Your task to perform on an android device: Open Reddit.com Image 0: 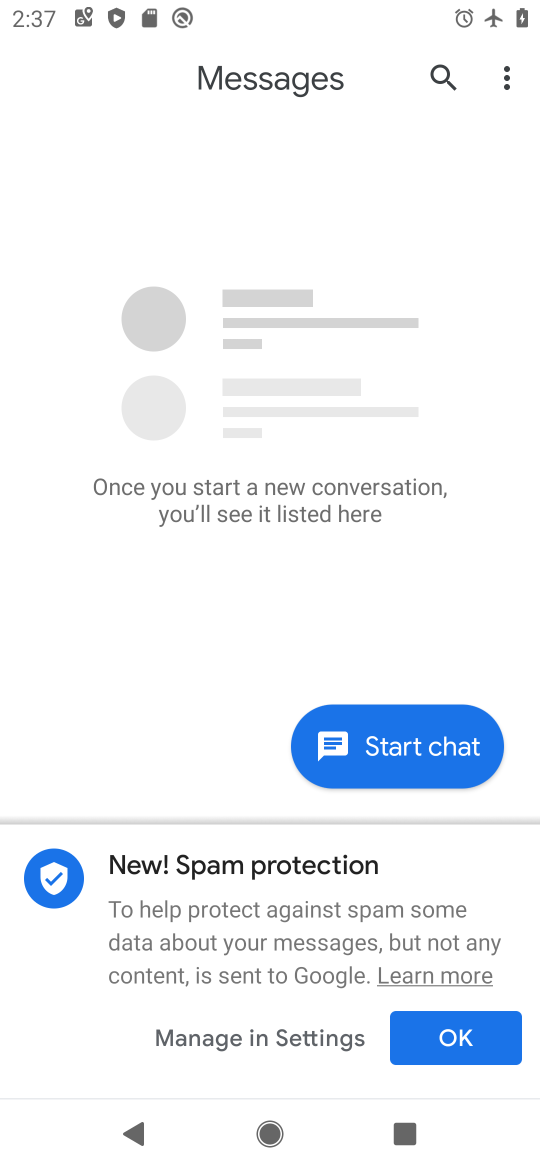
Step 0: press home button
Your task to perform on an android device: Open Reddit.com Image 1: 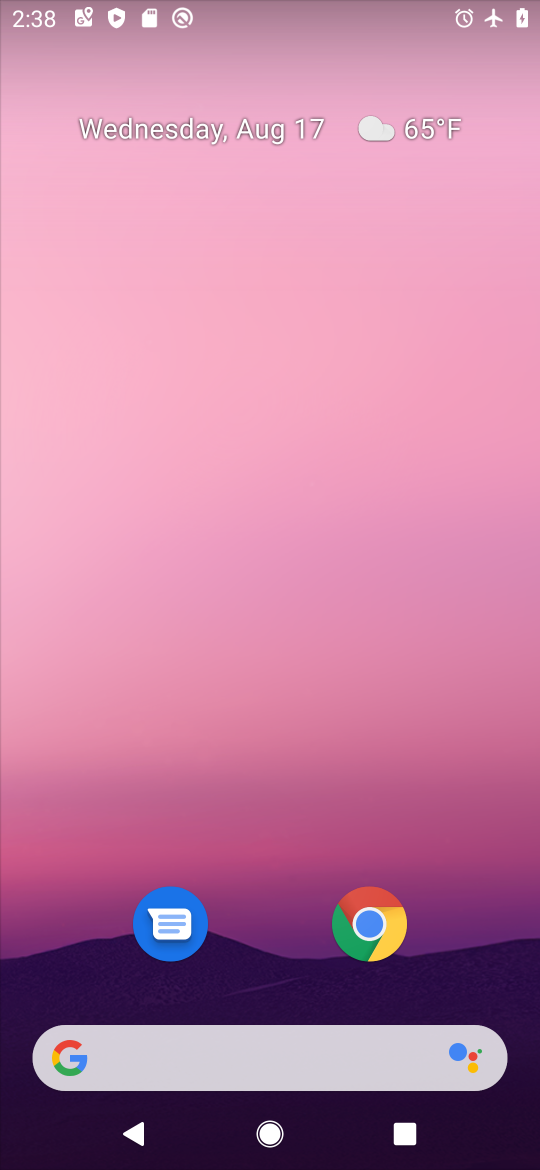
Step 1: click (373, 927)
Your task to perform on an android device: Open Reddit.com Image 2: 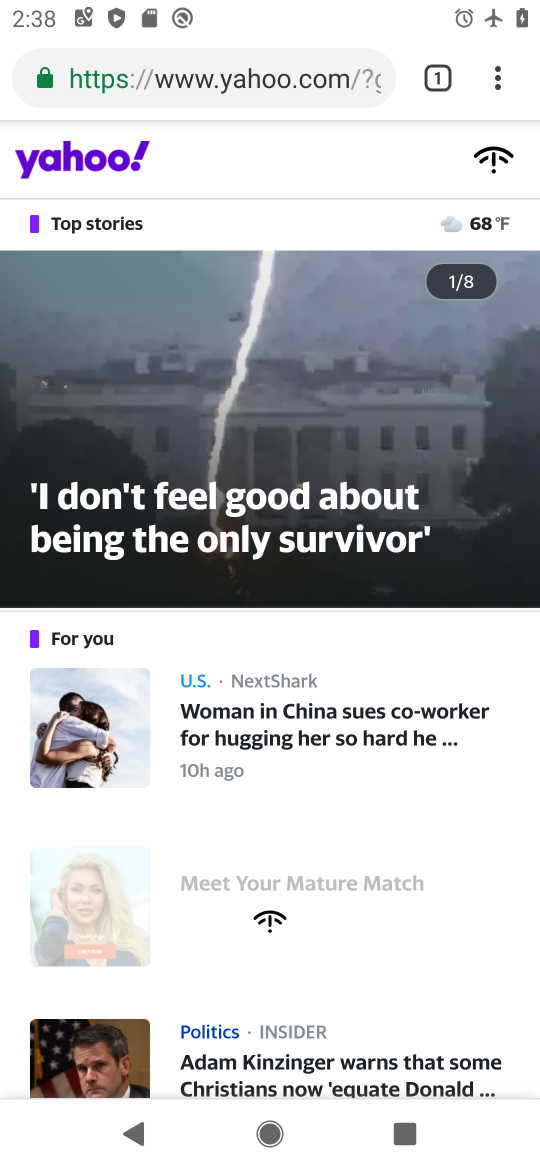
Step 2: click (360, 77)
Your task to perform on an android device: Open Reddit.com Image 3: 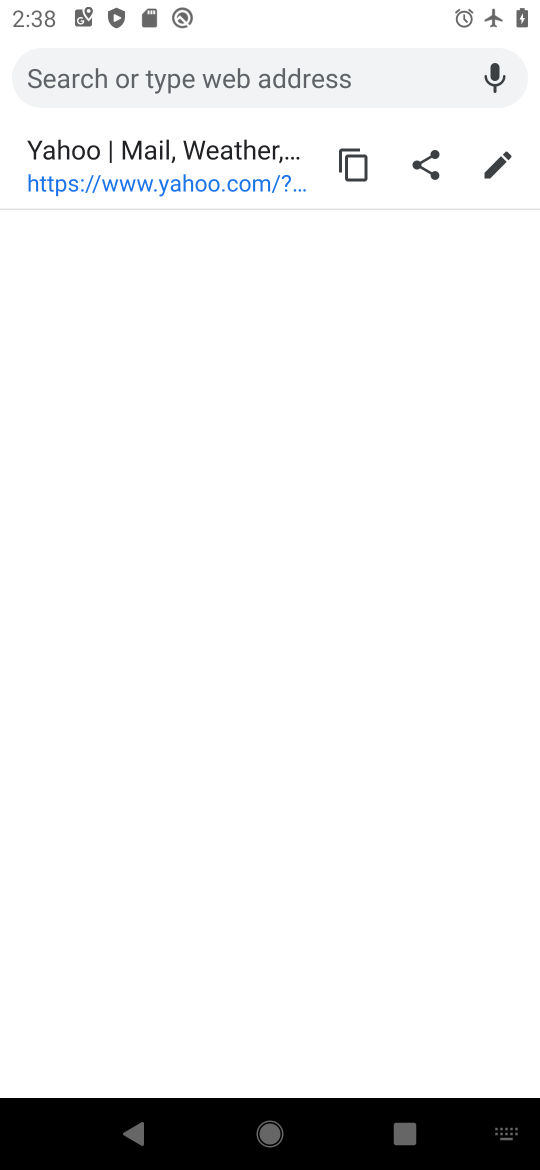
Step 3: type "Reddit.com"
Your task to perform on an android device: Open Reddit.com Image 4: 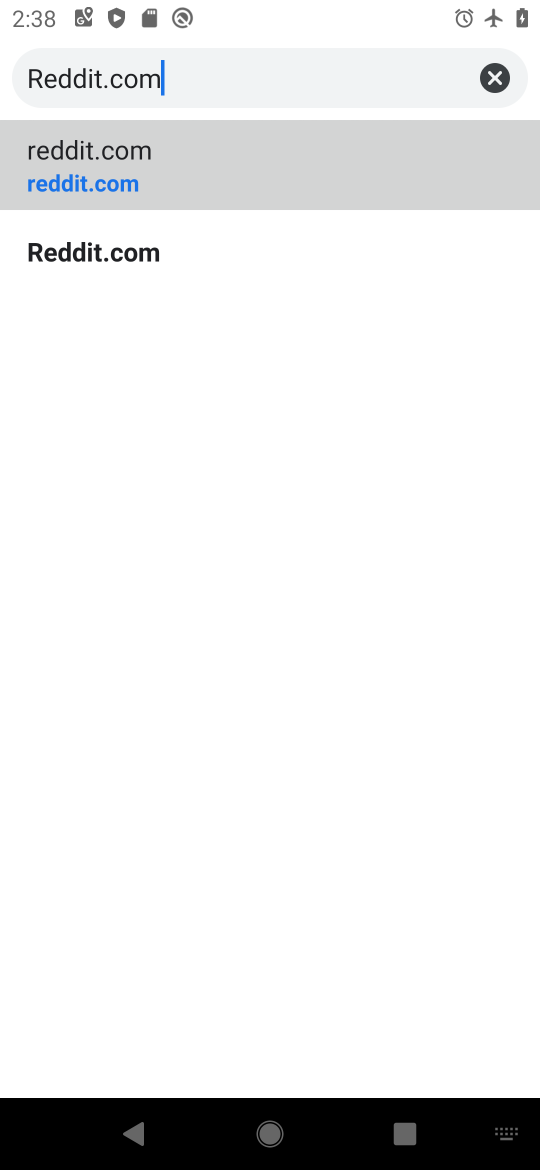
Step 4: click (128, 252)
Your task to perform on an android device: Open Reddit.com Image 5: 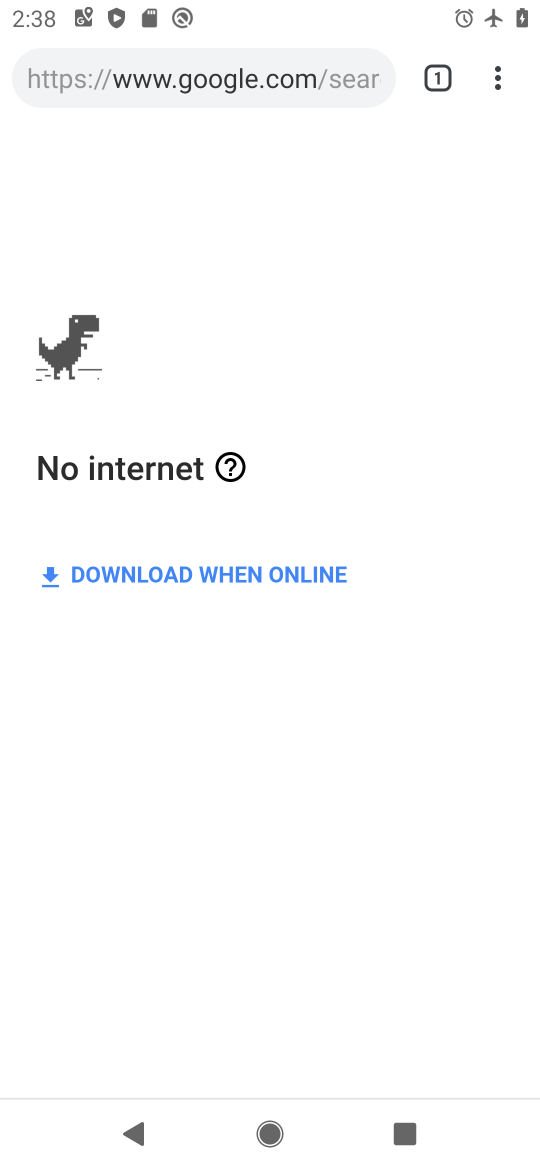
Step 5: task complete